Your task to perform on an android device: Search for vegetarian restaurants on Maps Image 0: 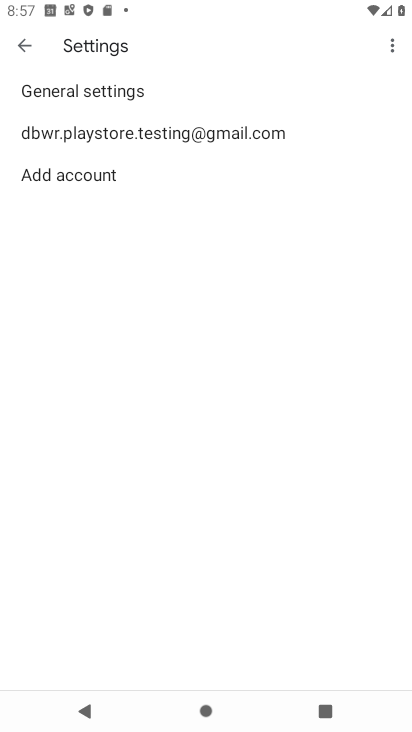
Step 0: press home button
Your task to perform on an android device: Search for vegetarian restaurants on Maps Image 1: 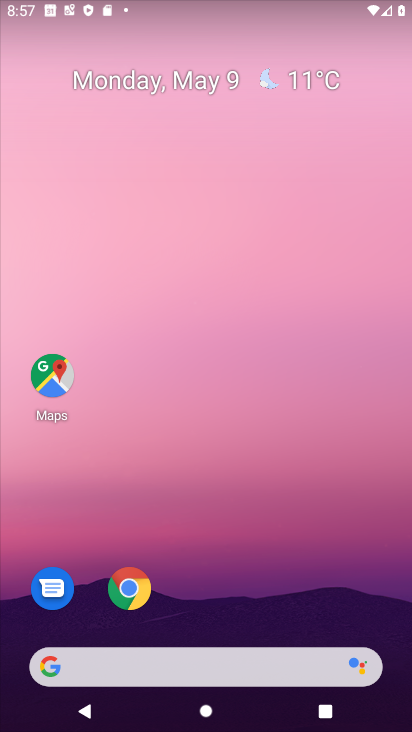
Step 1: click (48, 385)
Your task to perform on an android device: Search for vegetarian restaurants on Maps Image 2: 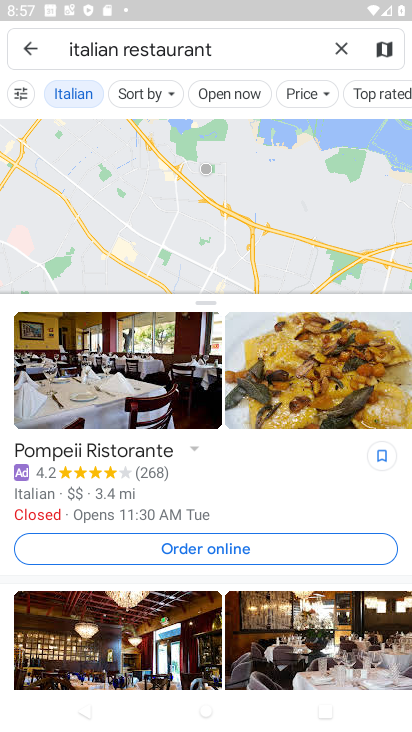
Step 2: click (340, 51)
Your task to perform on an android device: Search for vegetarian restaurants on Maps Image 3: 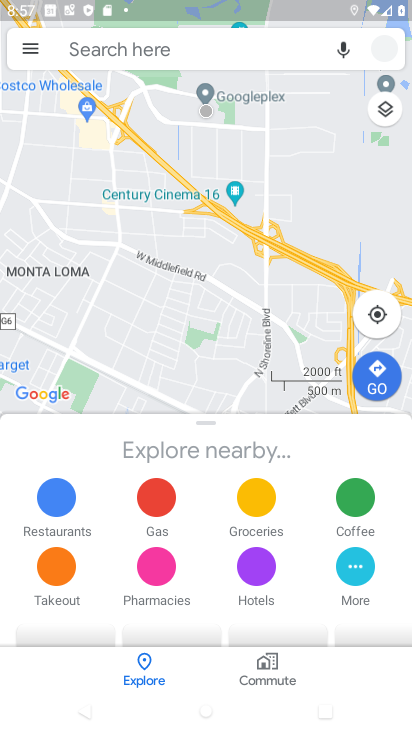
Step 3: click (196, 44)
Your task to perform on an android device: Search for vegetarian restaurants on Maps Image 4: 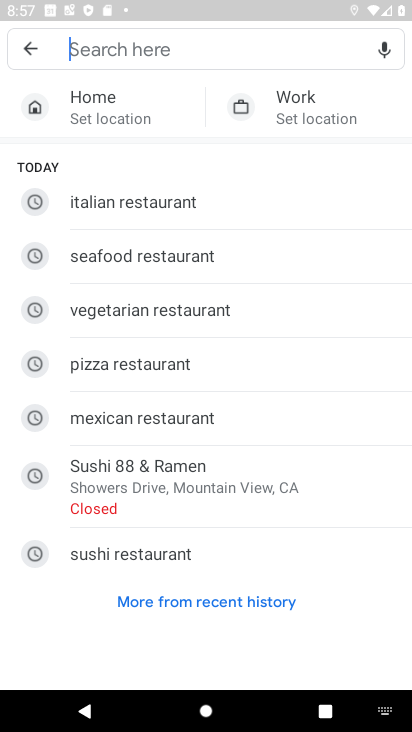
Step 4: click (140, 308)
Your task to perform on an android device: Search for vegetarian restaurants on Maps Image 5: 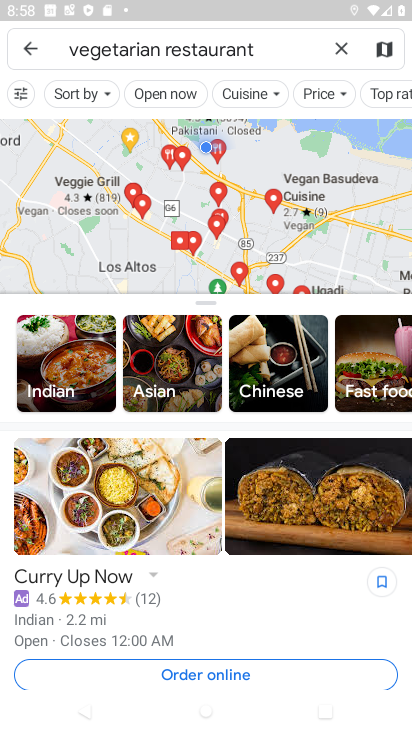
Step 5: task complete